Your task to perform on an android device: Open settings Image 0: 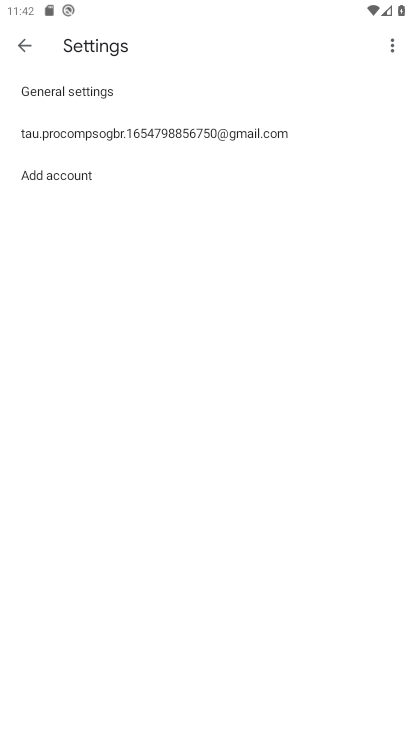
Step 0: press home button
Your task to perform on an android device: Open settings Image 1: 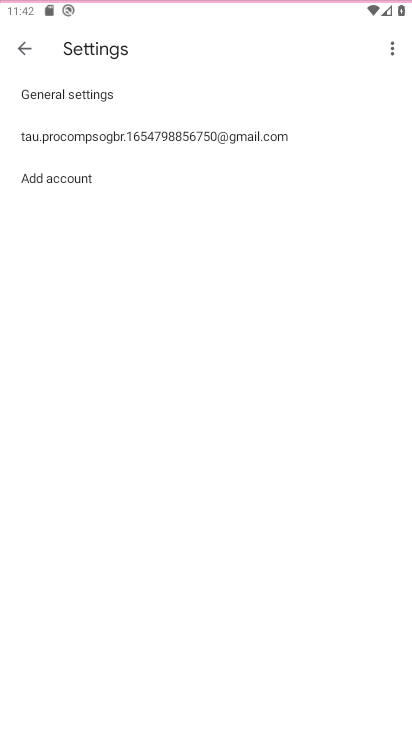
Step 1: drag from (267, 582) to (260, 179)
Your task to perform on an android device: Open settings Image 2: 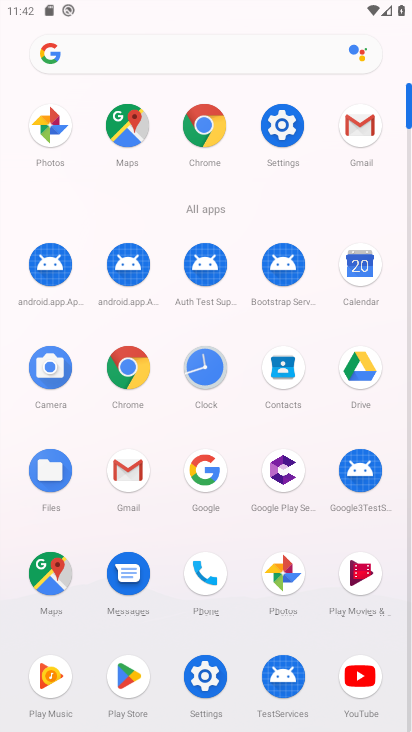
Step 2: click (275, 120)
Your task to perform on an android device: Open settings Image 3: 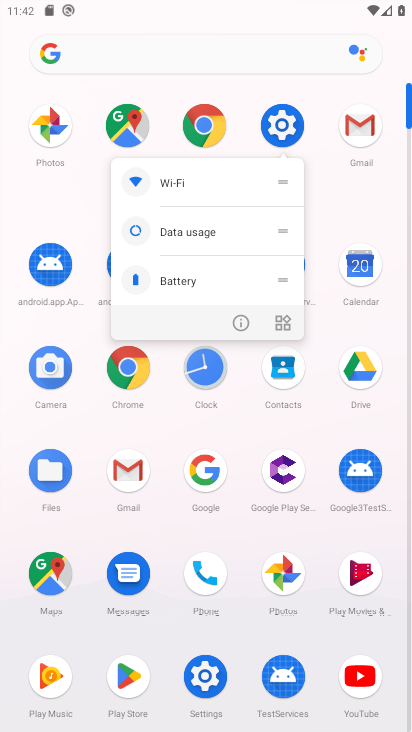
Step 3: click (235, 324)
Your task to perform on an android device: Open settings Image 4: 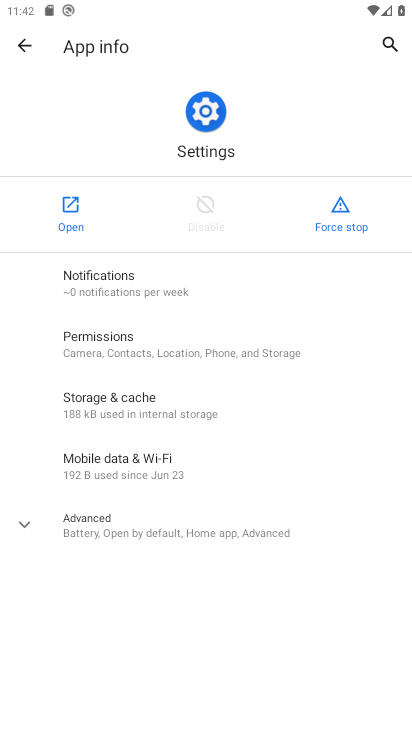
Step 4: click (78, 201)
Your task to perform on an android device: Open settings Image 5: 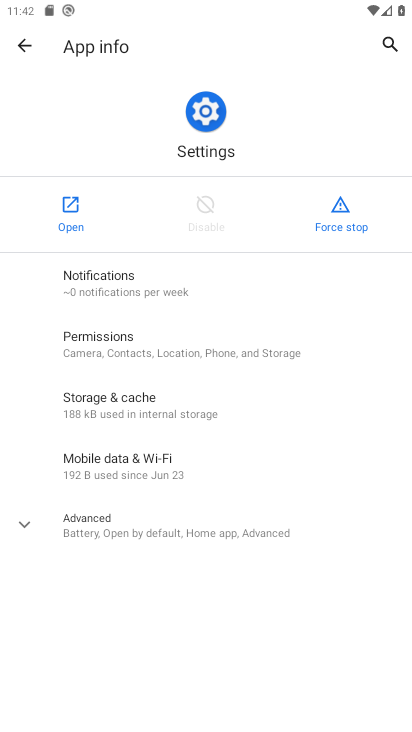
Step 5: click (78, 201)
Your task to perform on an android device: Open settings Image 6: 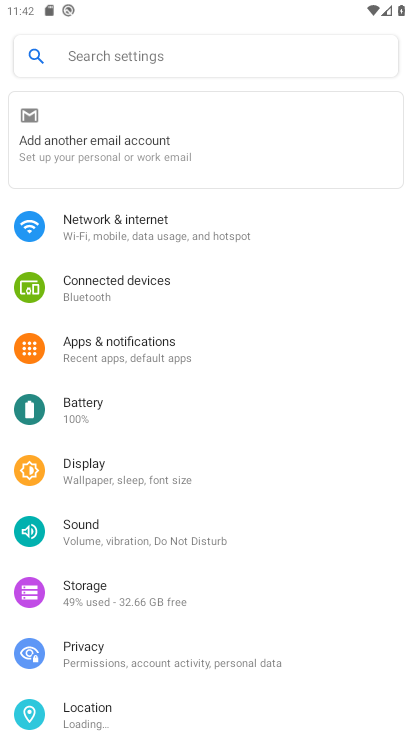
Step 6: task complete